Your task to perform on an android device: Open ESPN.com Image 0: 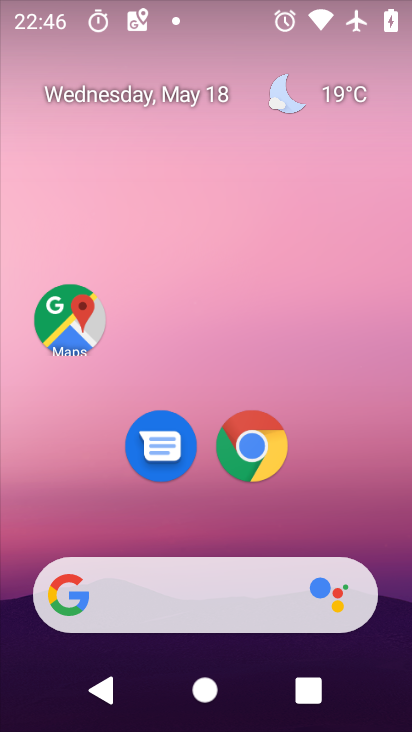
Step 0: press home button
Your task to perform on an android device: Open ESPN.com Image 1: 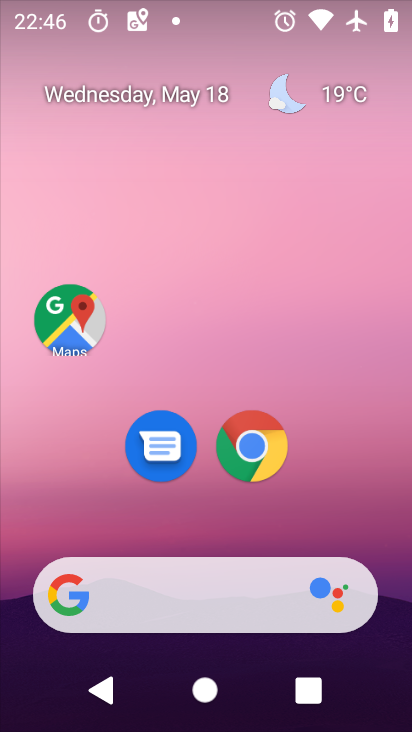
Step 1: drag from (181, 593) to (273, 187)
Your task to perform on an android device: Open ESPN.com Image 2: 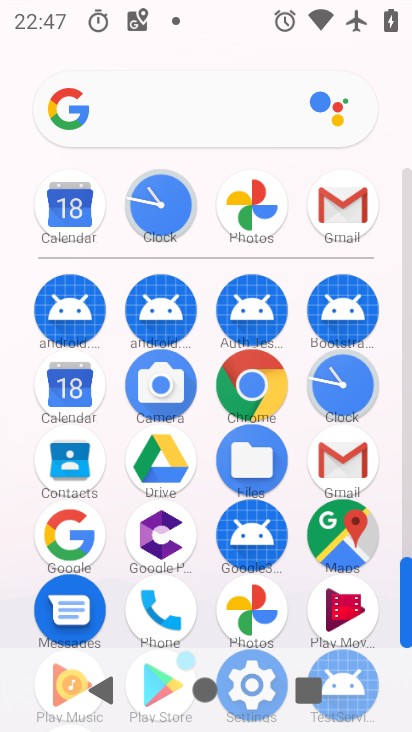
Step 2: click (270, 379)
Your task to perform on an android device: Open ESPN.com Image 3: 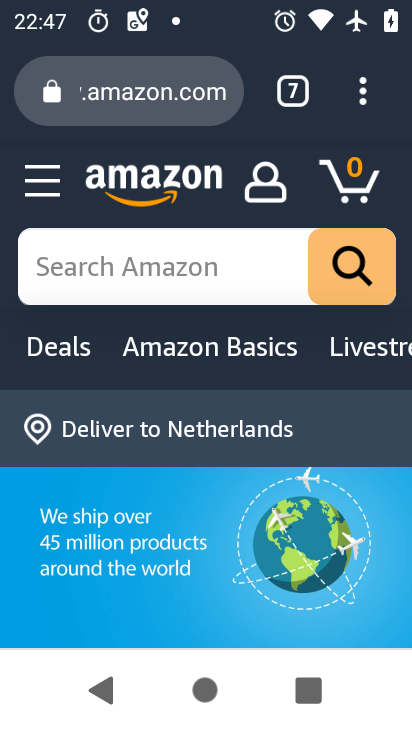
Step 3: drag from (365, 92) to (245, 177)
Your task to perform on an android device: Open ESPN.com Image 4: 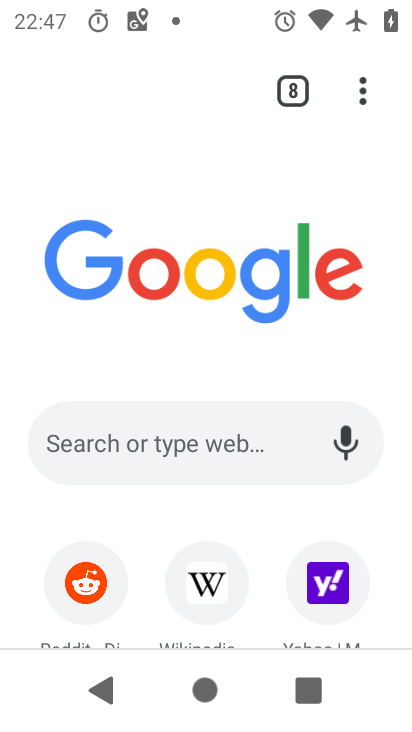
Step 4: drag from (227, 375) to (320, 89)
Your task to perform on an android device: Open ESPN.com Image 5: 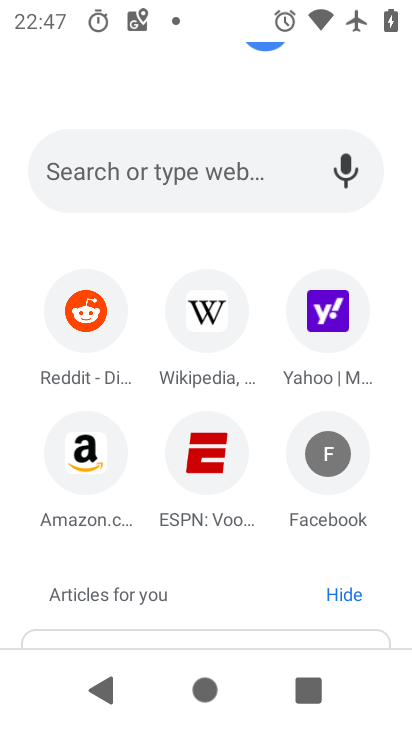
Step 5: click (217, 455)
Your task to perform on an android device: Open ESPN.com Image 6: 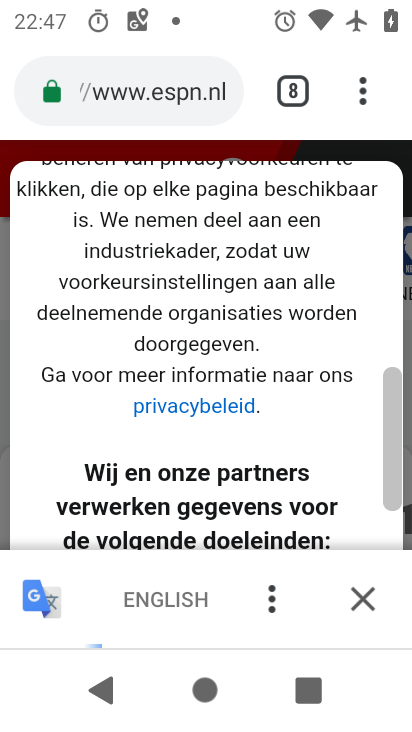
Step 6: click (188, 596)
Your task to perform on an android device: Open ESPN.com Image 7: 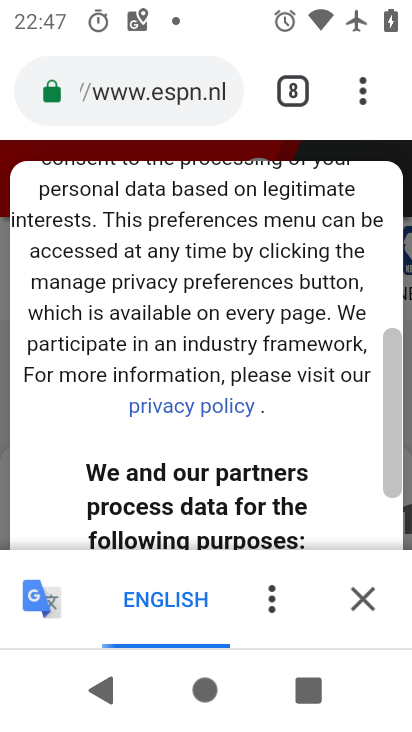
Step 7: drag from (258, 455) to (341, 124)
Your task to perform on an android device: Open ESPN.com Image 8: 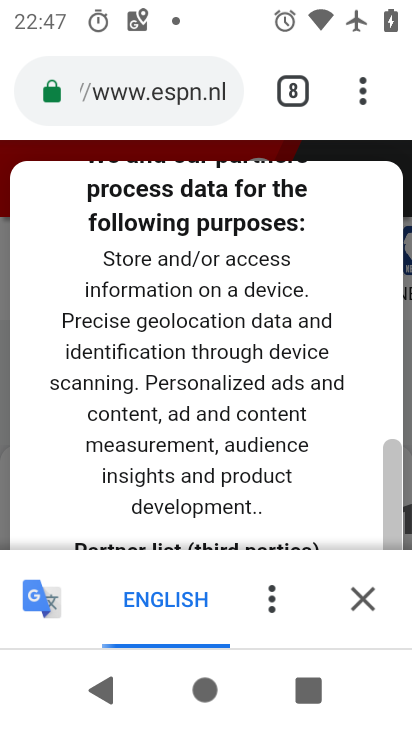
Step 8: drag from (247, 492) to (322, 171)
Your task to perform on an android device: Open ESPN.com Image 9: 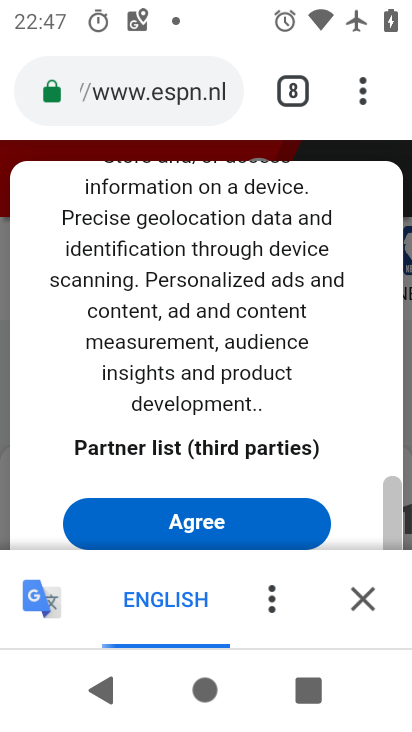
Step 9: click (217, 516)
Your task to perform on an android device: Open ESPN.com Image 10: 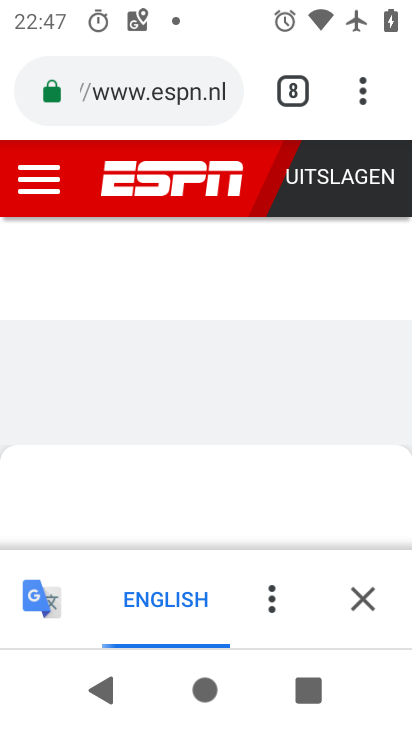
Step 10: task complete